Your task to perform on an android device: change the clock style Image 0: 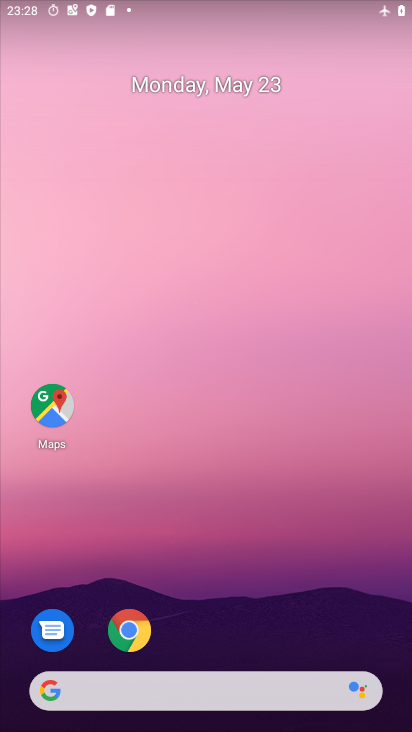
Step 0: drag from (324, 646) to (328, 5)
Your task to perform on an android device: change the clock style Image 1: 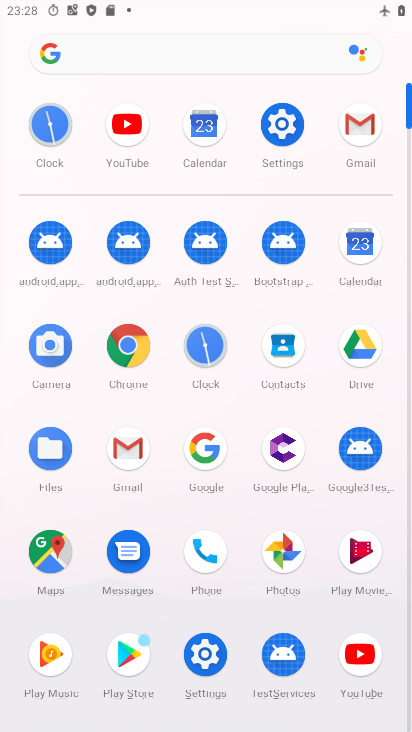
Step 1: click (48, 118)
Your task to perform on an android device: change the clock style Image 2: 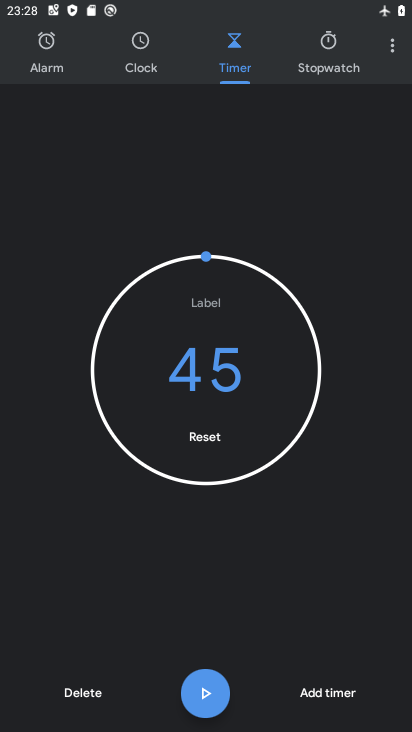
Step 2: click (395, 47)
Your task to perform on an android device: change the clock style Image 3: 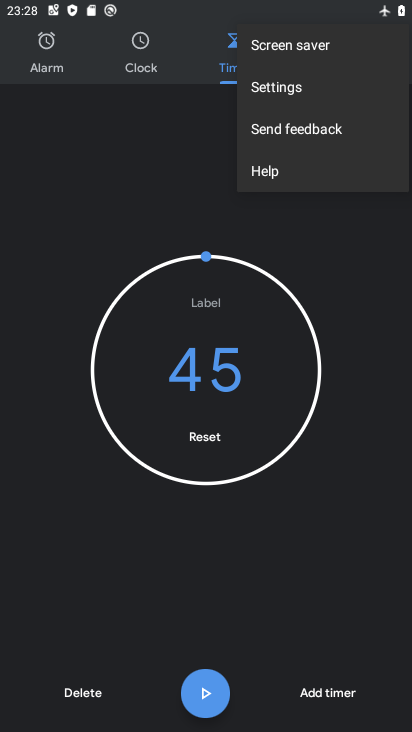
Step 3: click (292, 94)
Your task to perform on an android device: change the clock style Image 4: 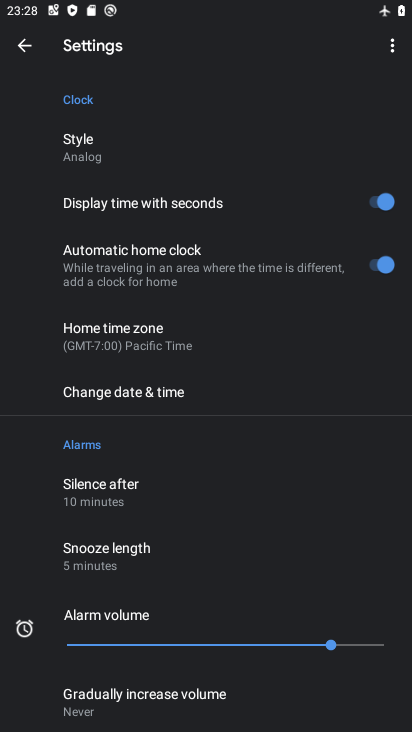
Step 4: click (92, 154)
Your task to perform on an android device: change the clock style Image 5: 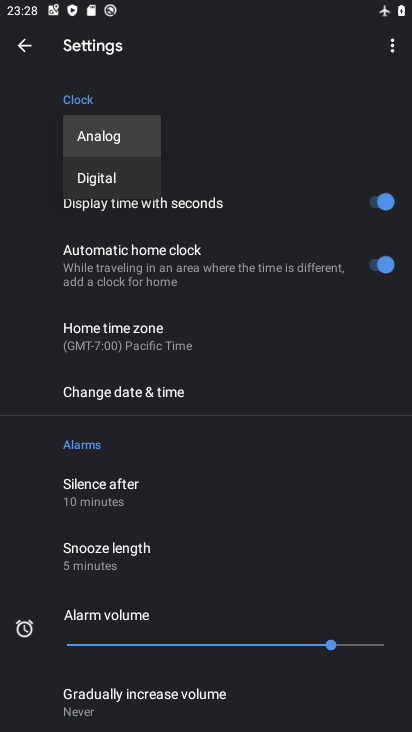
Step 5: click (103, 181)
Your task to perform on an android device: change the clock style Image 6: 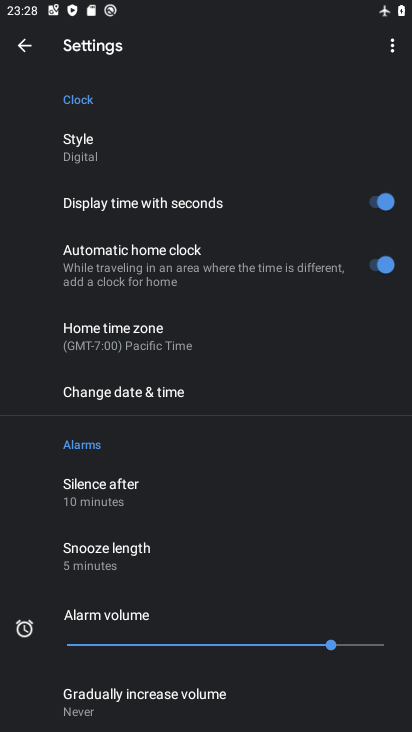
Step 6: task complete